Your task to perform on an android device: check the backup settings in the google photos Image 0: 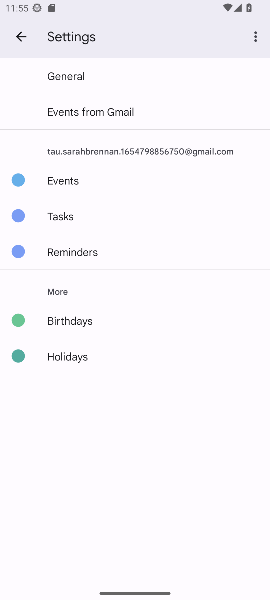
Step 0: press home button
Your task to perform on an android device: check the backup settings in the google photos Image 1: 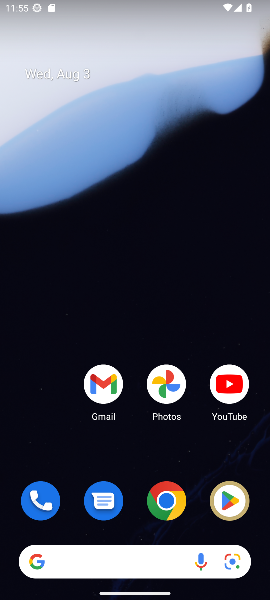
Step 1: drag from (167, 459) to (113, 174)
Your task to perform on an android device: check the backup settings in the google photos Image 2: 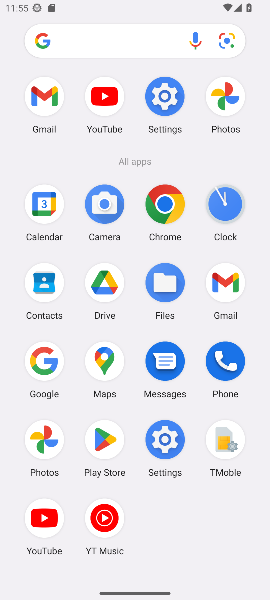
Step 2: click (50, 442)
Your task to perform on an android device: check the backup settings in the google photos Image 3: 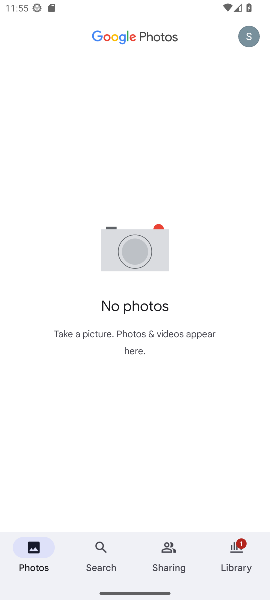
Step 3: click (248, 45)
Your task to perform on an android device: check the backup settings in the google photos Image 4: 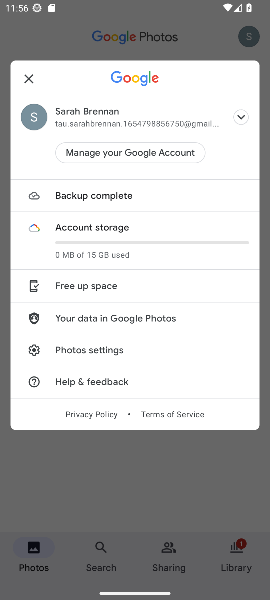
Step 4: click (104, 353)
Your task to perform on an android device: check the backup settings in the google photos Image 5: 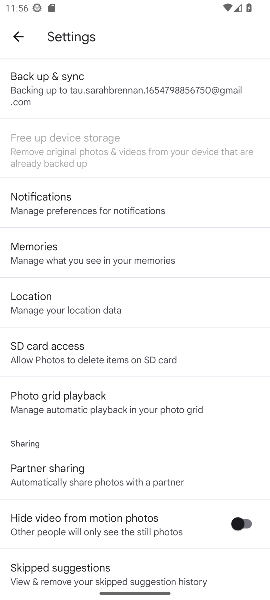
Step 5: click (111, 79)
Your task to perform on an android device: check the backup settings in the google photos Image 6: 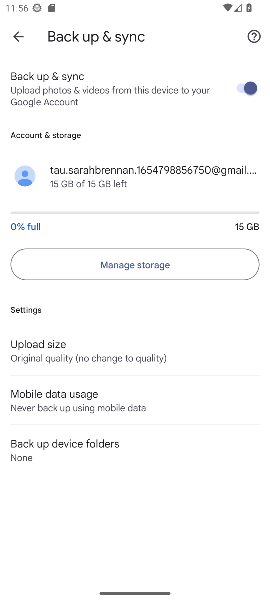
Step 6: task complete